Your task to perform on an android device: turn on priority inbox in the gmail app Image 0: 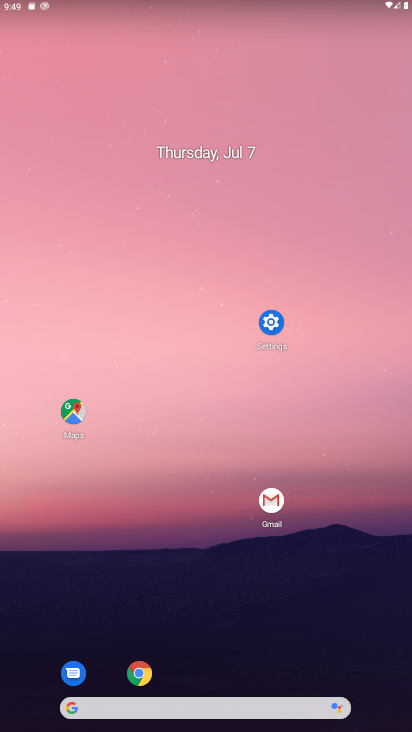
Step 0: click (273, 491)
Your task to perform on an android device: turn on priority inbox in the gmail app Image 1: 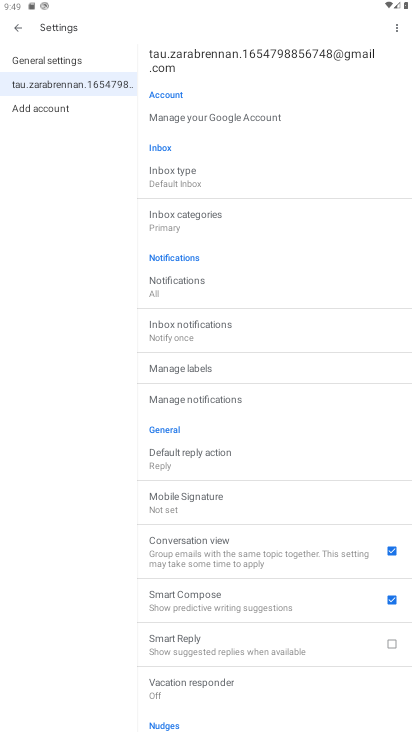
Step 1: click (167, 160)
Your task to perform on an android device: turn on priority inbox in the gmail app Image 2: 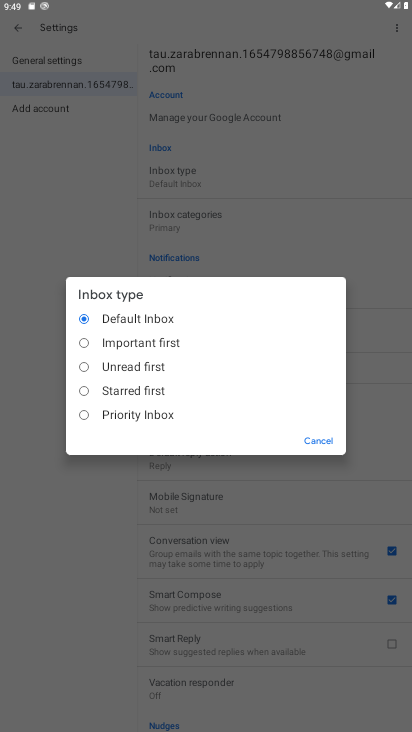
Step 2: click (122, 410)
Your task to perform on an android device: turn on priority inbox in the gmail app Image 3: 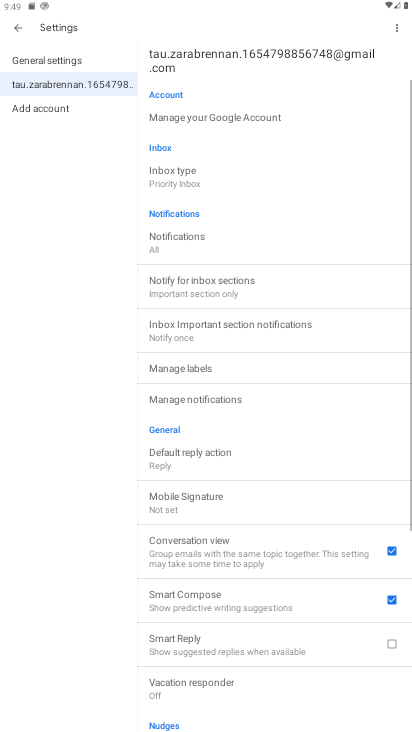
Step 3: task complete